Your task to perform on an android device: Open Chrome and go to the settings page Image 0: 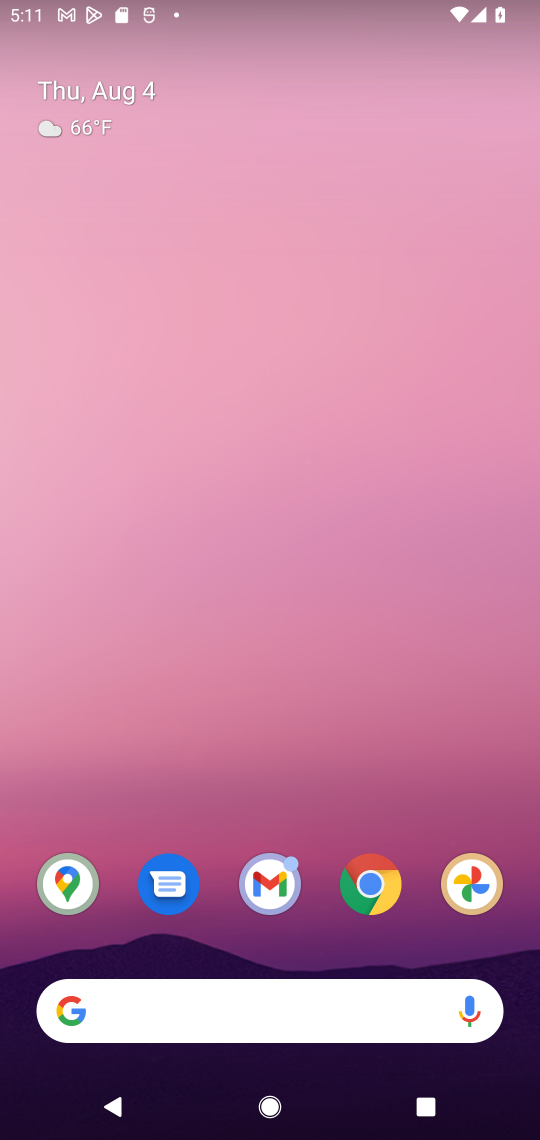
Step 0: click (368, 901)
Your task to perform on an android device: Open Chrome and go to the settings page Image 1: 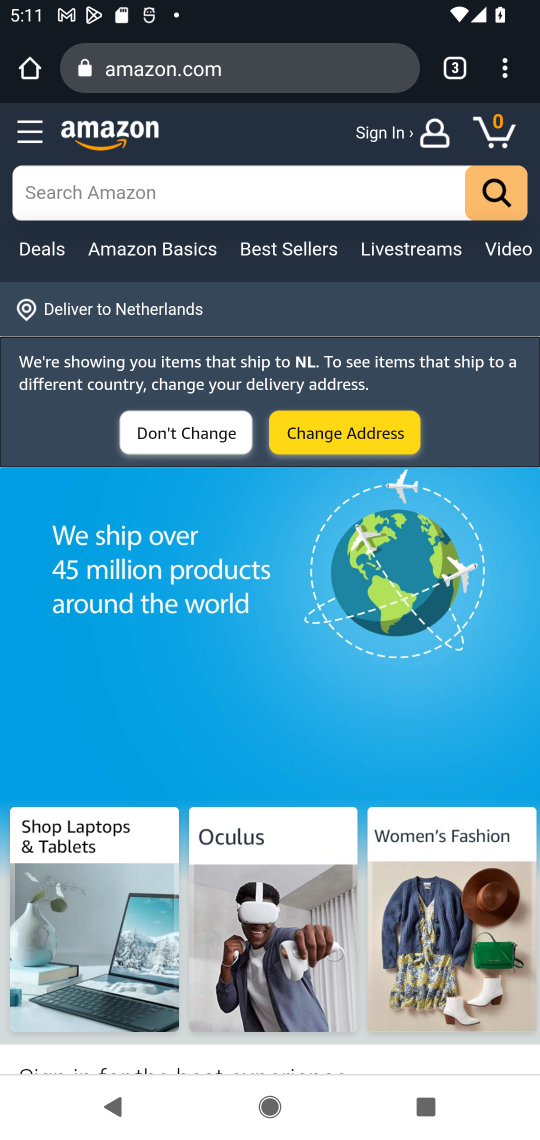
Step 1: click (496, 88)
Your task to perform on an android device: Open Chrome and go to the settings page Image 2: 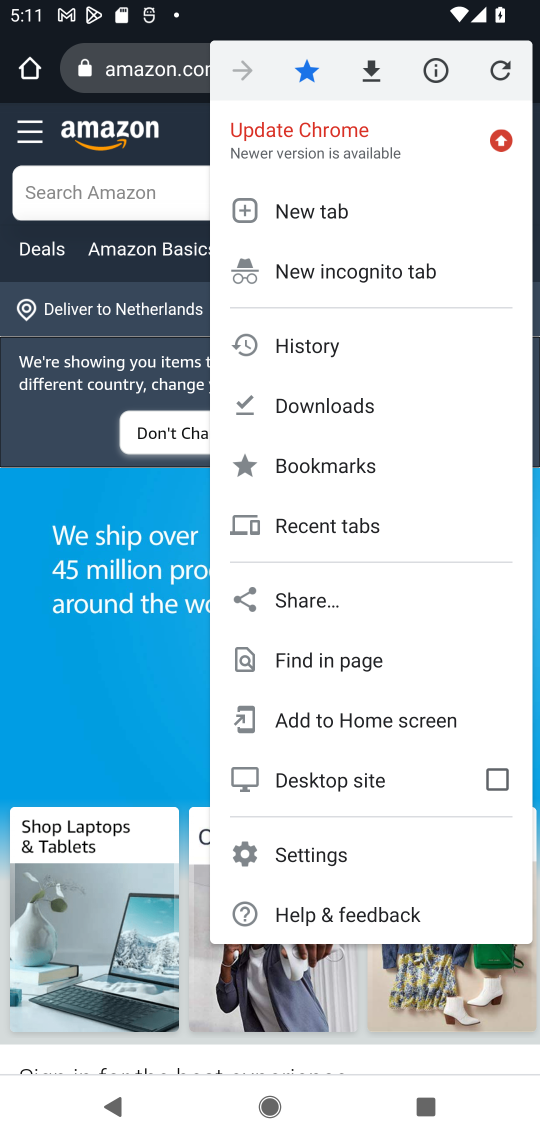
Step 2: click (284, 833)
Your task to perform on an android device: Open Chrome and go to the settings page Image 3: 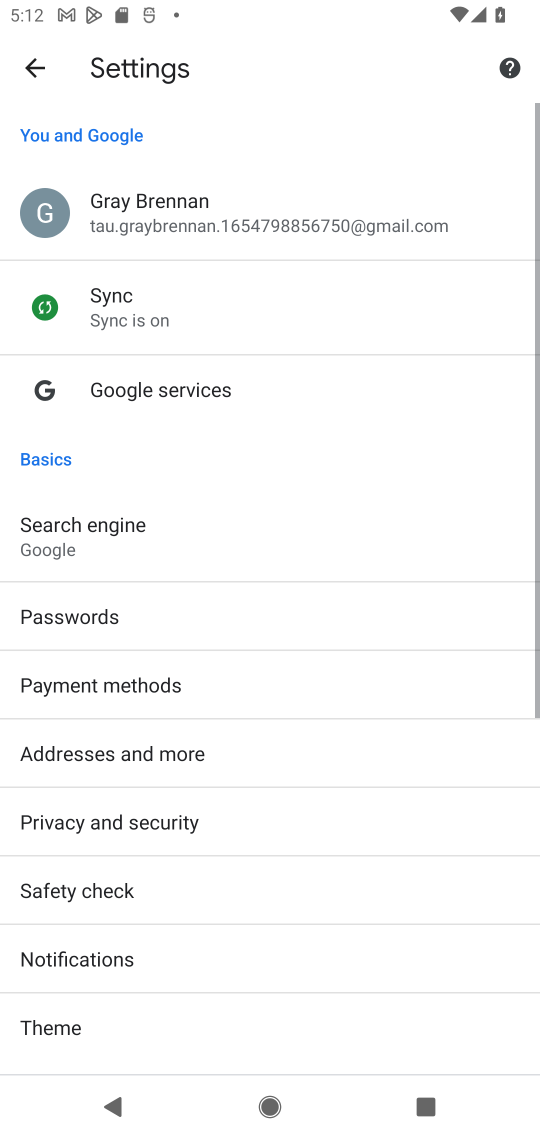
Step 3: task complete